Your task to perform on an android device: Go to eBay Image 0: 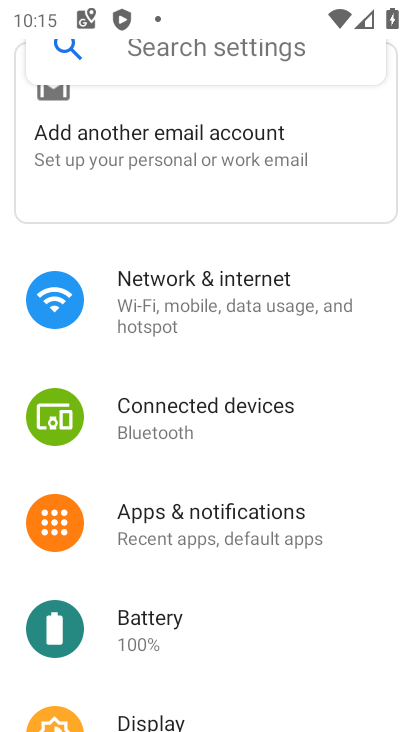
Step 0: press home button
Your task to perform on an android device: Go to eBay Image 1: 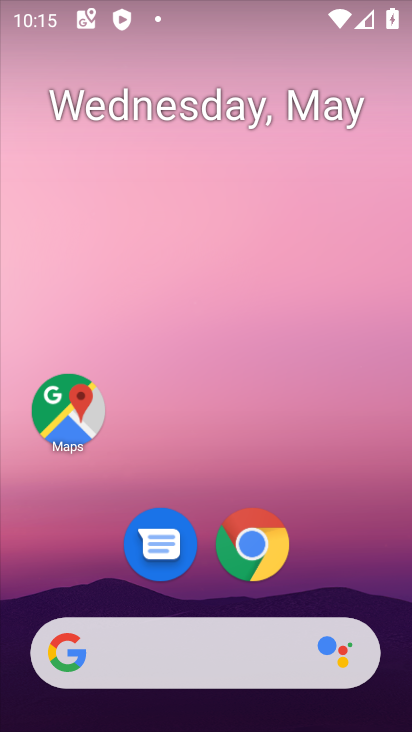
Step 1: drag from (294, 623) to (279, 11)
Your task to perform on an android device: Go to eBay Image 2: 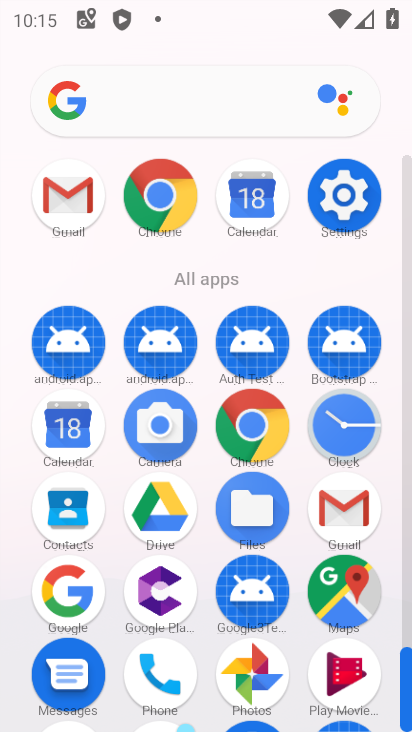
Step 2: click (259, 421)
Your task to perform on an android device: Go to eBay Image 3: 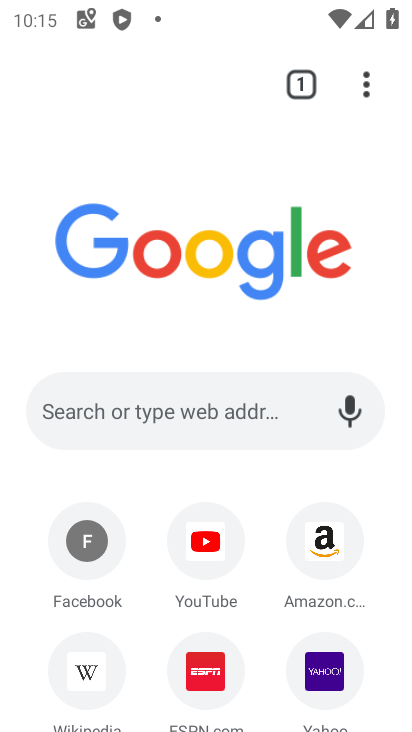
Step 3: click (219, 410)
Your task to perform on an android device: Go to eBay Image 4: 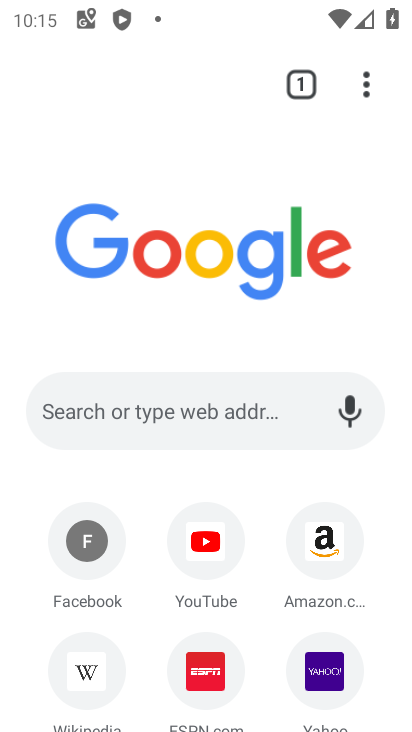
Step 4: click (219, 410)
Your task to perform on an android device: Go to eBay Image 5: 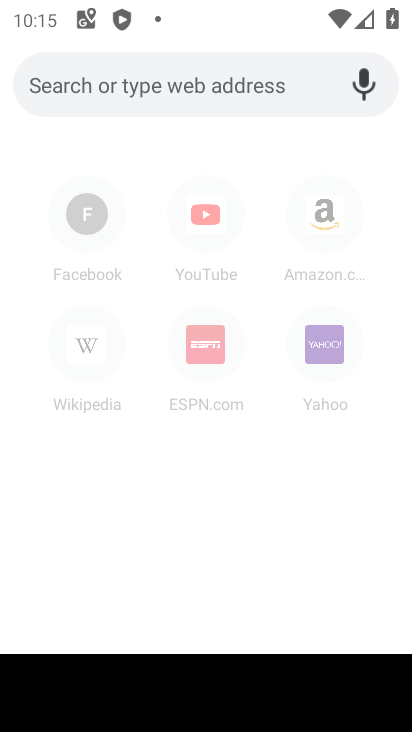
Step 5: type "ebay"
Your task to perform on an android device: Go to eBay Image 6: 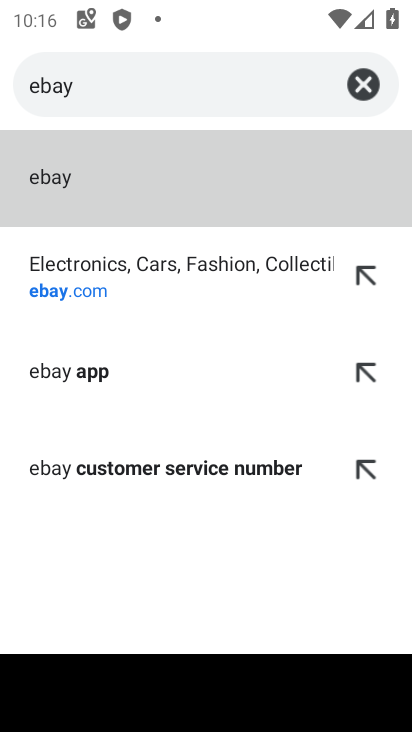
Step 6: click (207, 267)
Your task to perform on an android device: Go to eBay Image 7: 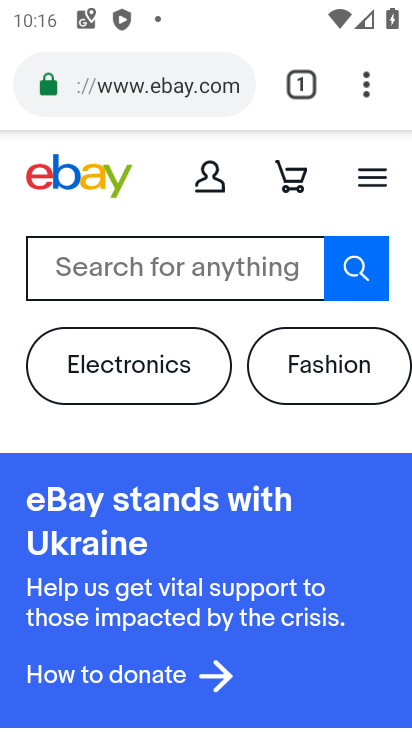
Step 7: task complete